Your task to perform on an android device: Open display settings Image 0: 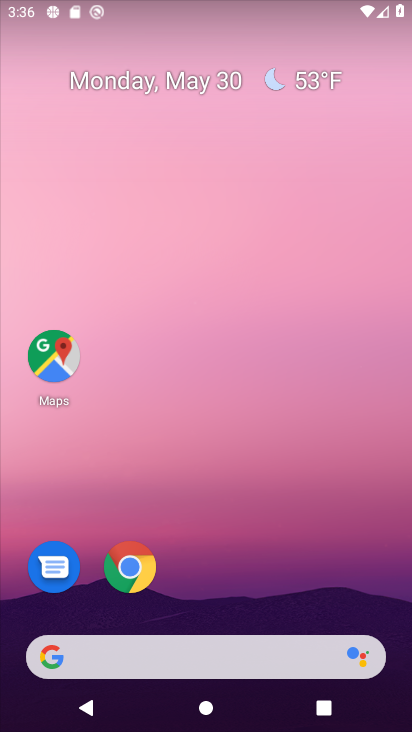
Step 0: drag from (192, 671) to (382, 89)
Your task to perform on an android device: Open display settings Image 1: 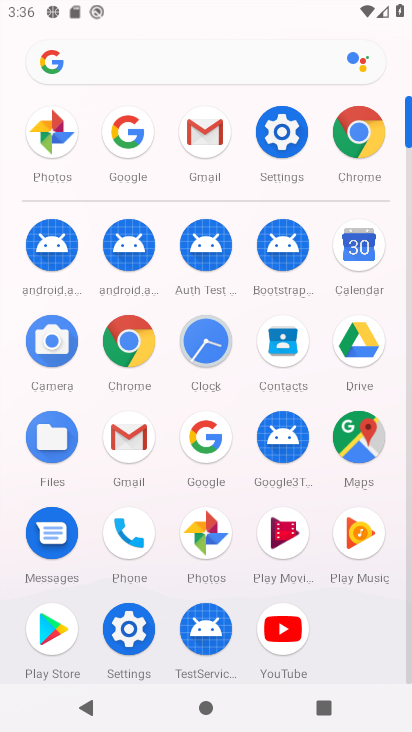
Step 1: click (280, 123)
Your task to perform on an android device: Open display settings Image 2: 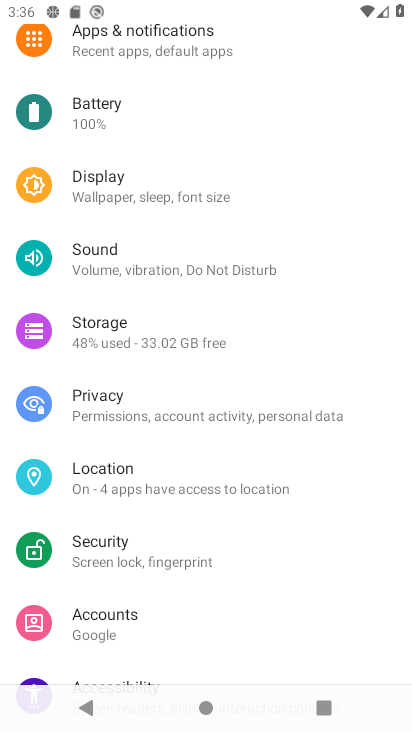
Step 2: click (176, 180)
Your task to perform on an android device: Open display settings Image 3: 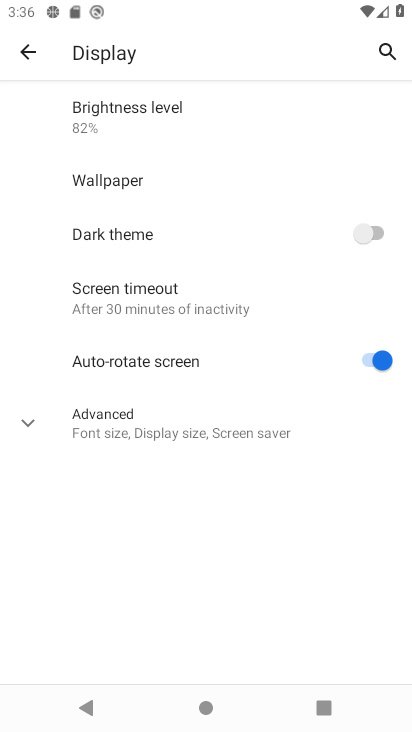
Step 3: task complete